Your task to perform on an android device: turn pop-ups on in chrome Image 0: 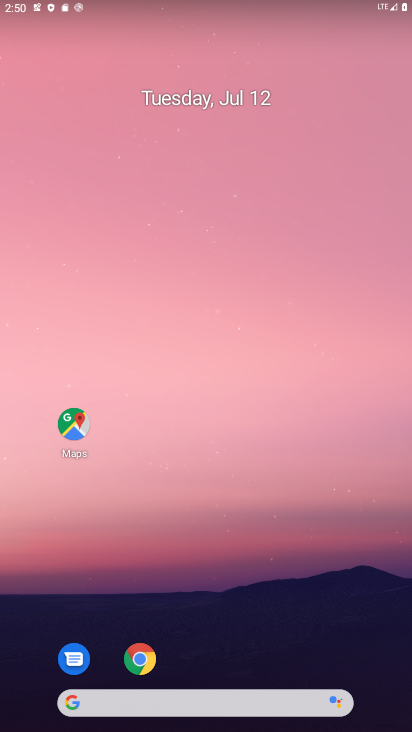
Step 0: click (137, 655)
Your task to perform on an android device: turn pop-ups on in chrome Image 1: 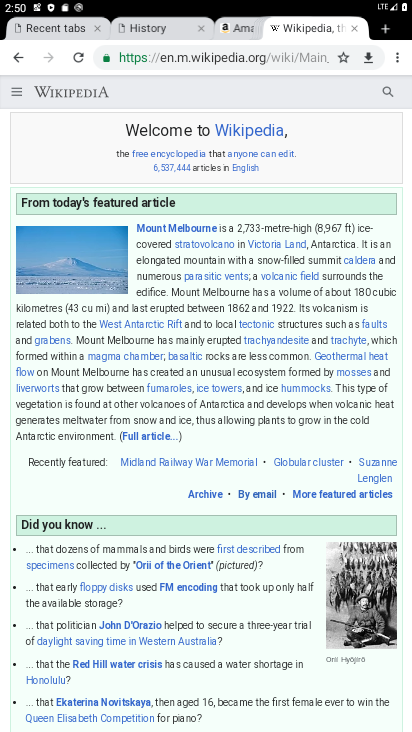
Step 1: click (397, 62)
Your task to perform on an android device: turn pop-ups on in chrome Image 2: 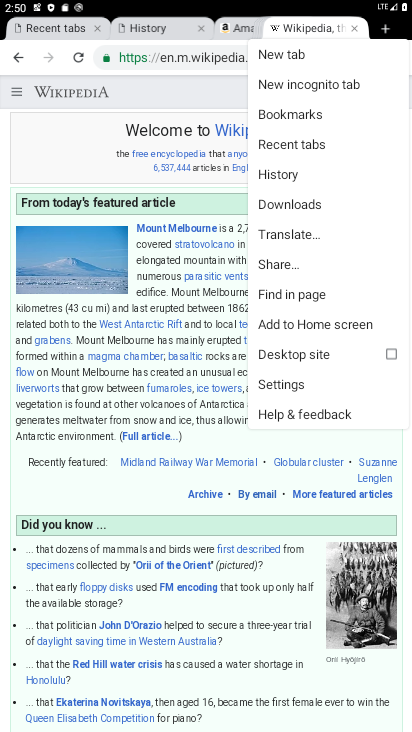
Step 2: click (285, 385)
Your task to perform on an android device: turn pop-ups on in chrome Image 3: 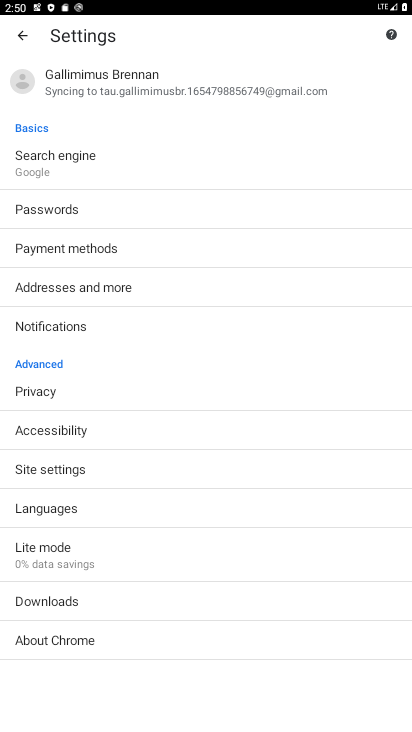
Step 3: click (58, 474)
Your task to perform on an android device: turn pop-ups on in chrome Image 4: 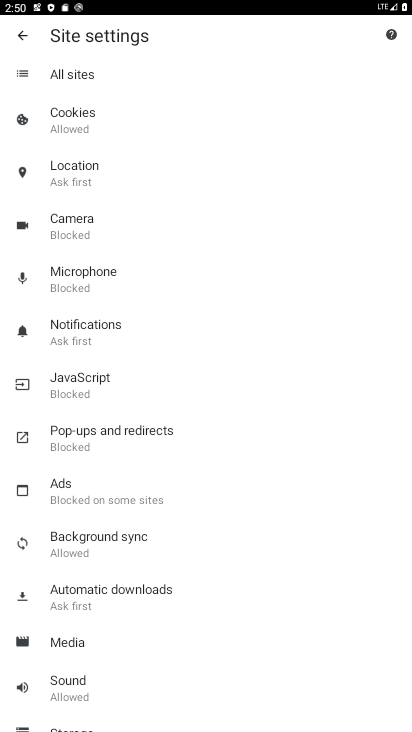
Step 4: click (98, 435)
Your task to perform on an android device: turn pop-ups on in chrome Image 5: 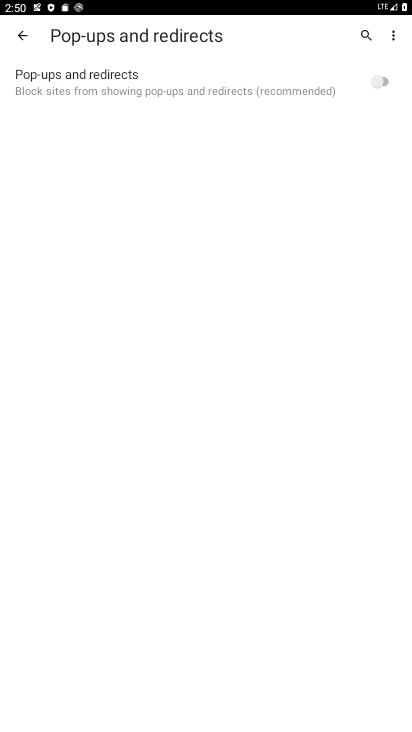
Step 5: click (388, 79)
Your task to perform on an android device: turn pop-ups on in chrome Image 6: 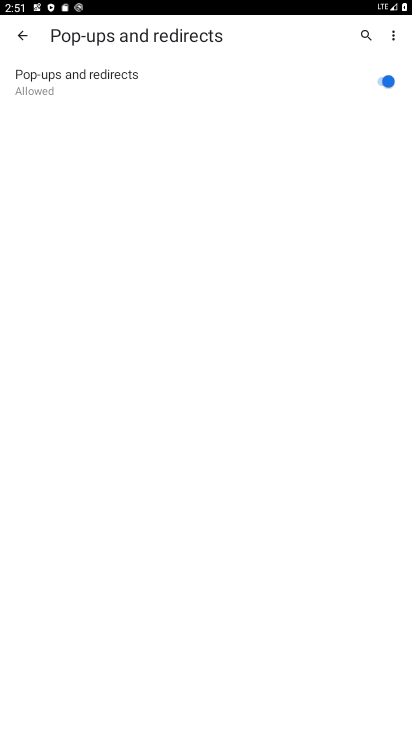
Step 6: task complete